Your task to perform on an android device: Open Reddit.com Image 0: 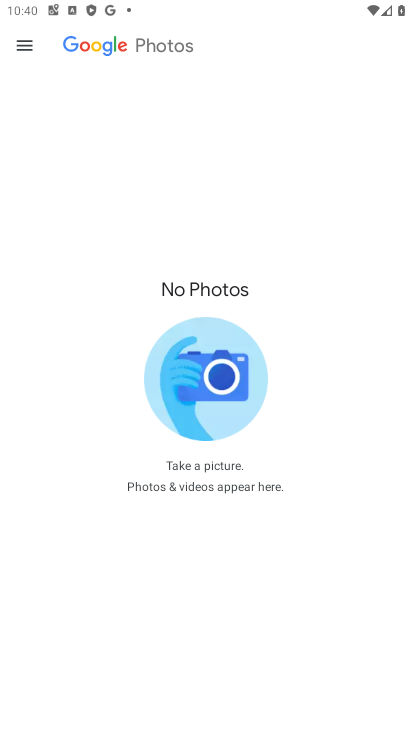
Step 0: press home button
Your task to perform on an android device: Open Reddit.com Image 1: 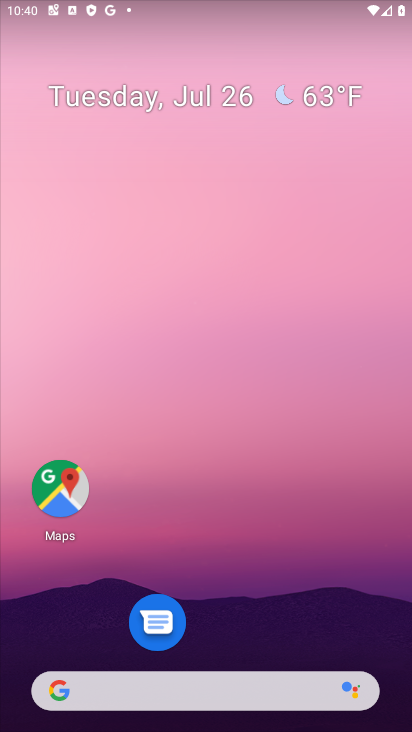
Step 1: drag from (298, 578) to (373, 65)
Your task to perform on an android device: Open Reddit.com Image 2: 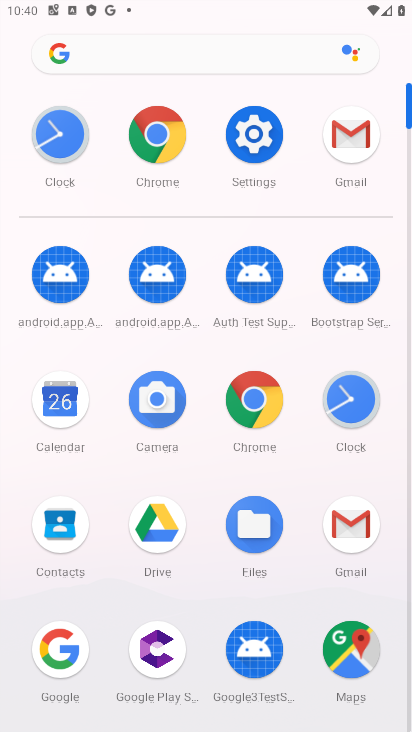
Step 2: click (178, 128)
Your task to perform on an android device: Open Reddit.com Image 3: 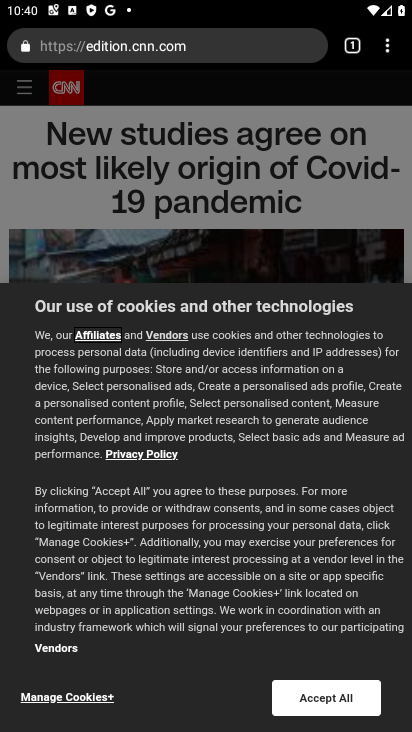
Step 3: click (248, 52)
Your task to perform on an android device: Open Reddit.com Image 4: 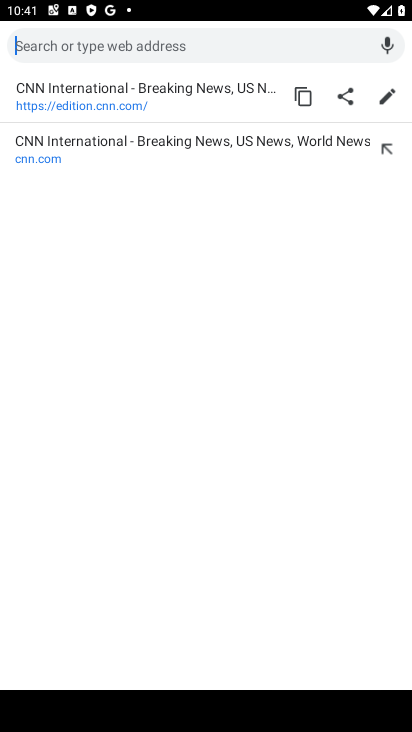
Step 4: type "Reddit.com"
Your task to perform on an android device: Open Reddit.com Image 5: 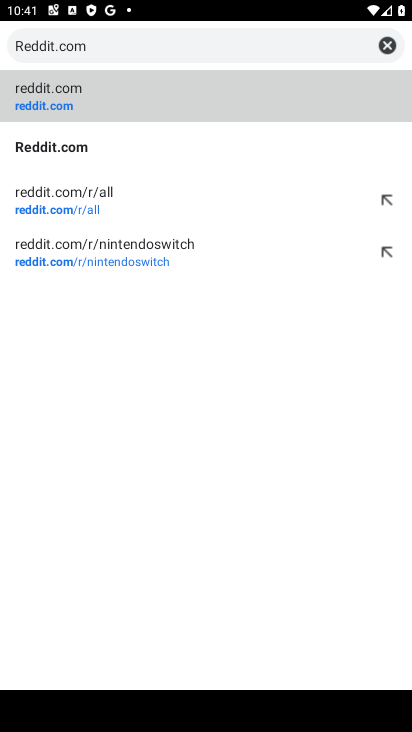
Step 5: click (70, 142)
Your task to perform on an android device: Open Reddit.com Image 6: 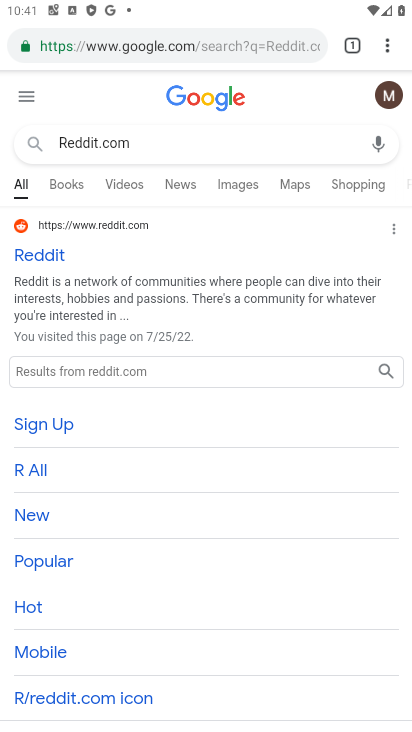
Step 6: click (32, 253)
Your task to perform on an android device: Open Reddit.com Image 7: 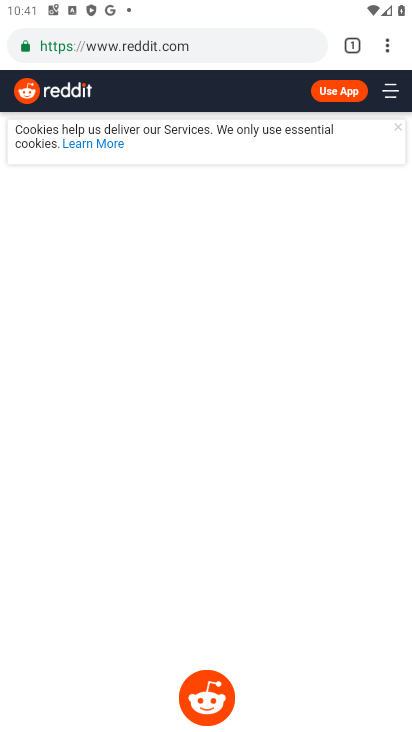
Step 7: task complete